Your task to perform on an android device: turn on bluetooth scan Image 0: 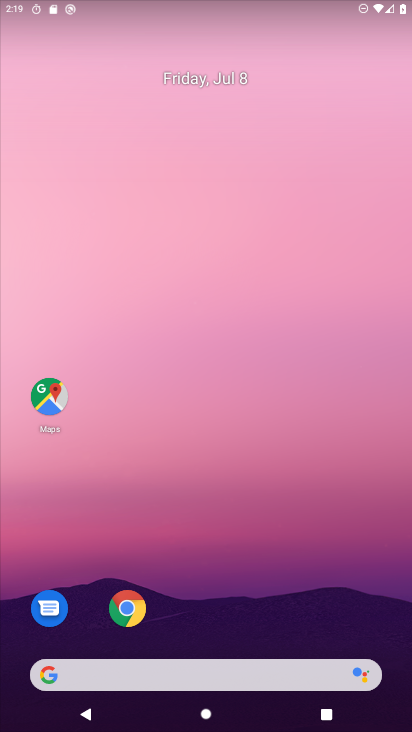
Step 0: drag from (227, 703) to (227, 187)
Your task to perform on an android device: turn on bluetooth scan Image 1: 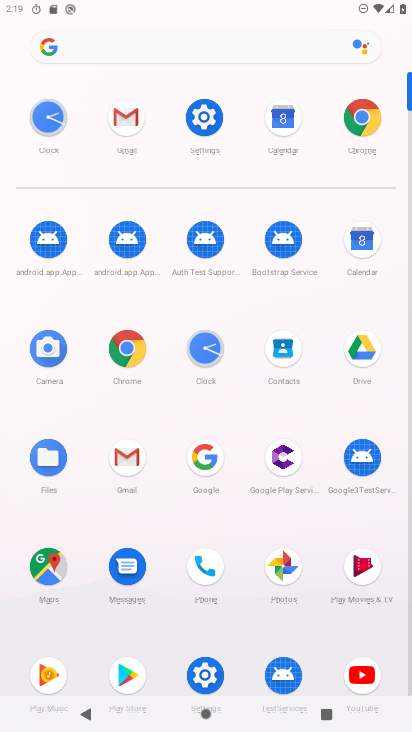
Step 1: click (200, 111)
Your task to perform on an android device: turn on bluetooth scan Image 2: 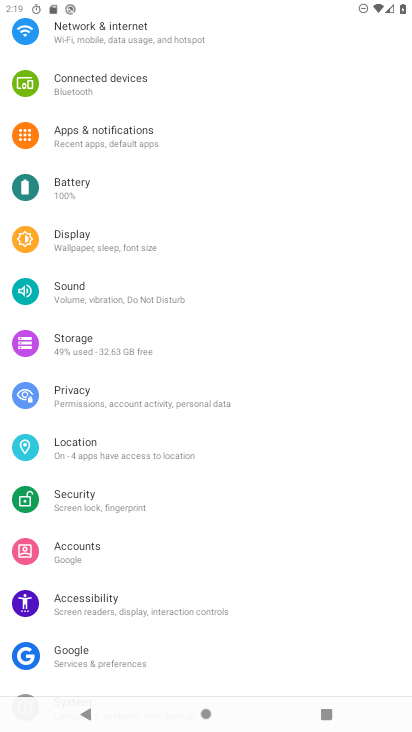
Step 2: click (81, 444)
Your task to perform on an android device: turn on bluetooth scan Image 3: 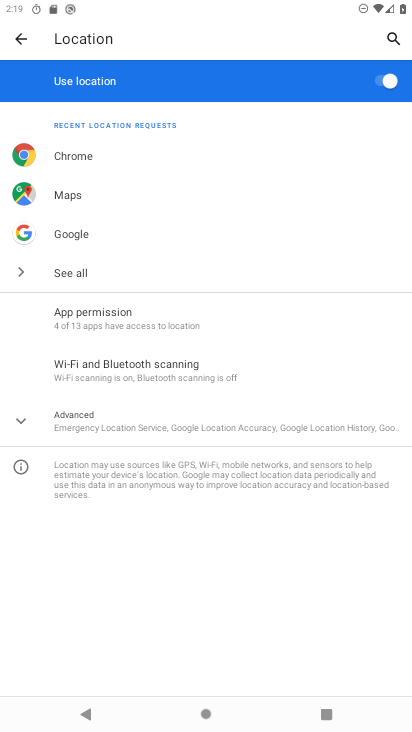
Step 3: click (71, 367)
Your task to perform on an android device: turn on bluetooth scan Image 4: 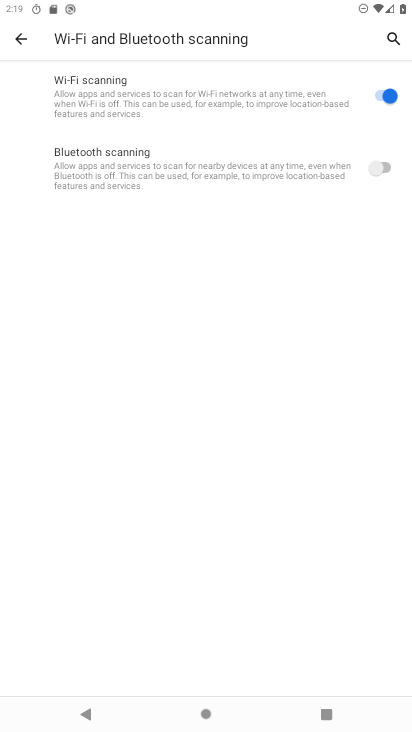
Step 4: click (385, 159)
Your task to perform on an android device: turn on bluetooth scan Image 5: 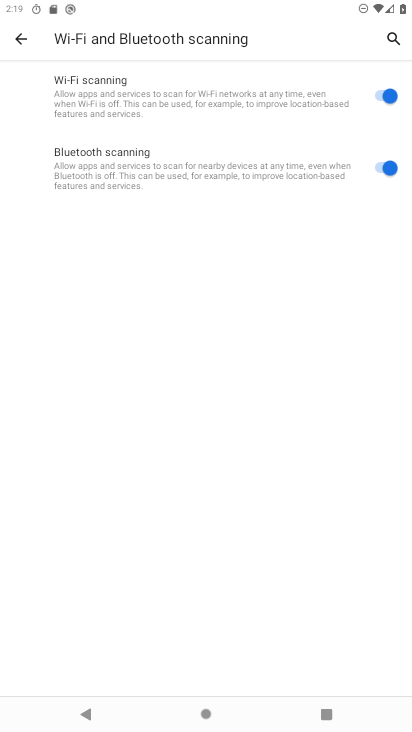
Step 5: task complete